Your task to perform on an android device: Is it going to rain tomorrow? Image 0: 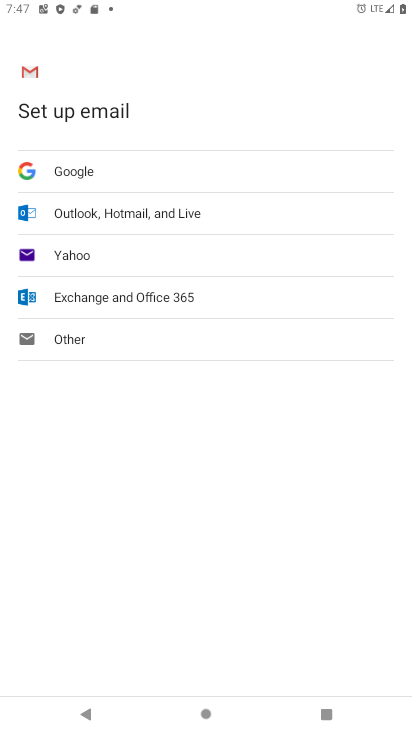
Step 0: press home button
Your task to perform on an android device: Is it going to rain tomorrow? Image 1: 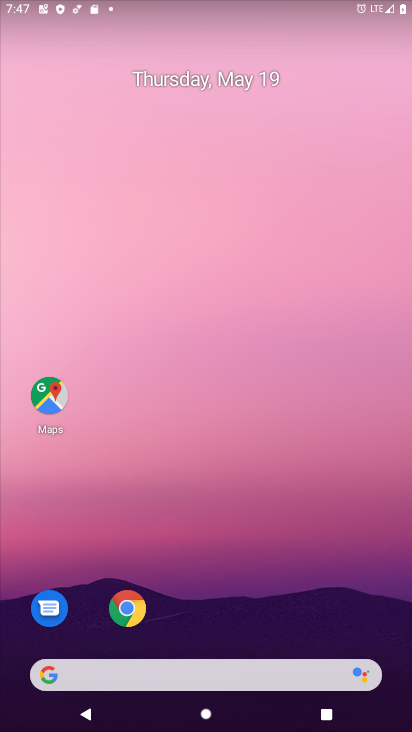
Step 1: drag from (395, 705) to (368, 228)
Your task to perform on an android device: Is it going to rain tomorrow? Image 2: 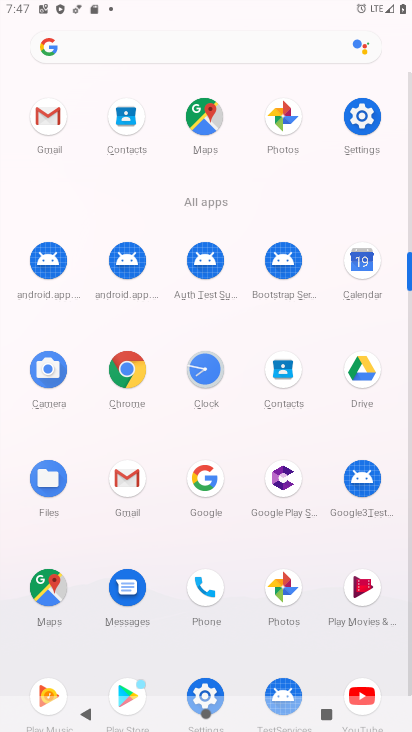
Step 2: click (197, 485)
Your task to perform on an android device: Is it going to rain tomorrow? Image 3: 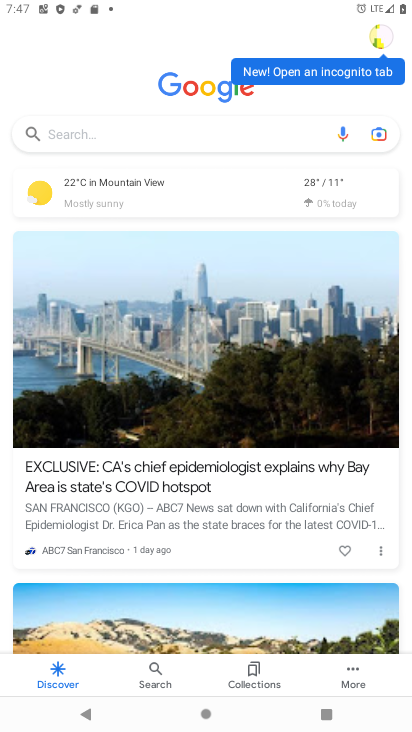
Step 3: click (309, 179)
Your task to perform on an android device: Is it going to rain tomorrow? Image 4: 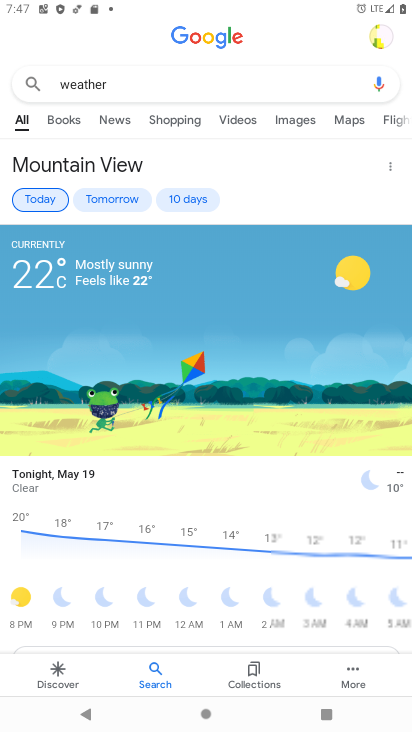
Step 4: click (126, 195)
Your task to perform on an android device: Is it going to rain tomorrow? Image 5: 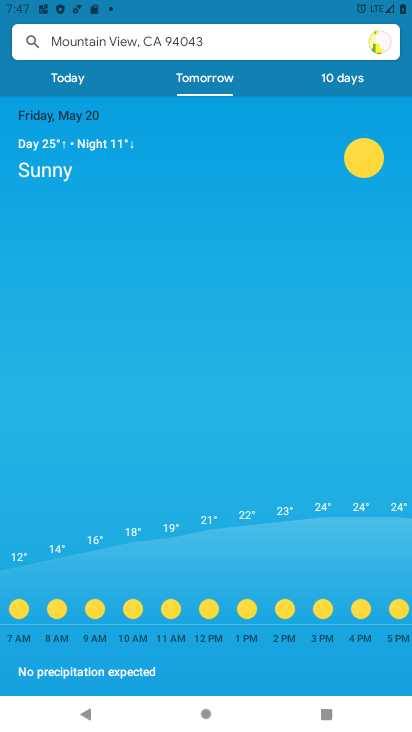
Step 5: task complete